Your task to perform on an android device: change the clock display to digital Image 0: 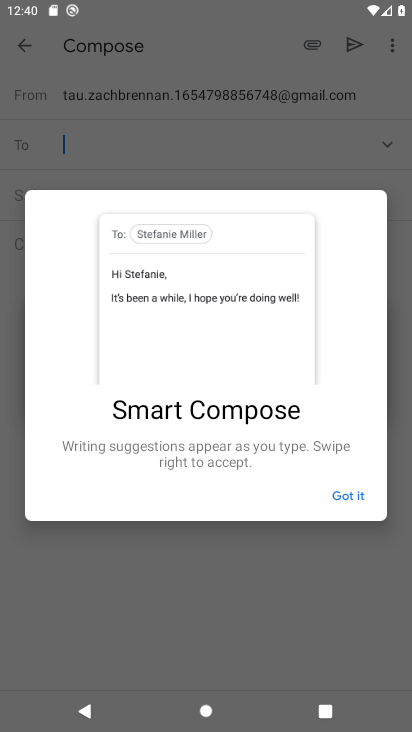
Step 0: press home button
Your task to perform on an android device: change the clock display to digital Image 1: 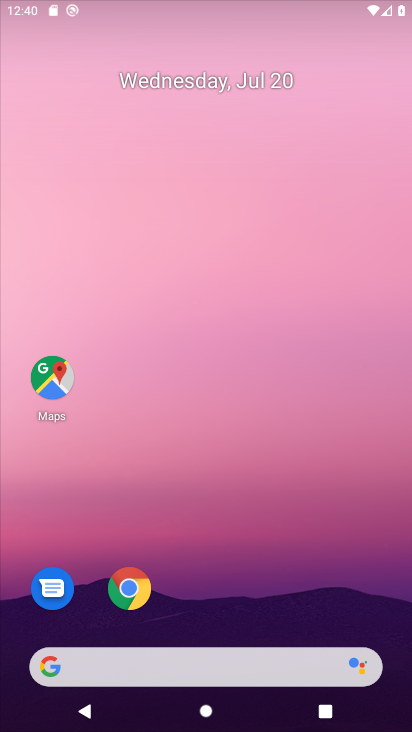
Step 1: drag from (259, 632) to (232, 142)
Your task to perform on an android device: change the clock display to digital Image 2: 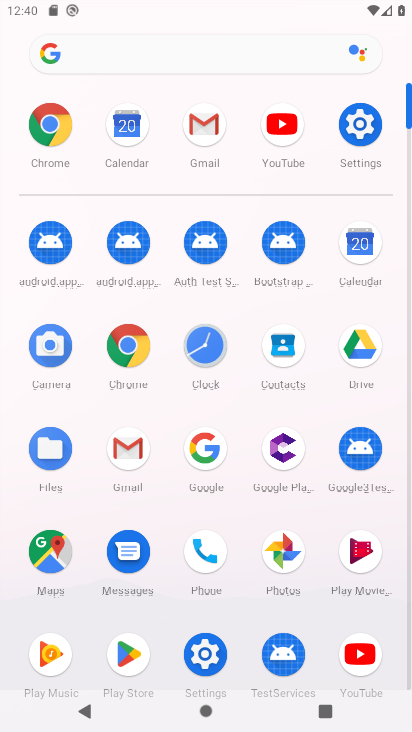
Step 2: click (200, 340)
Your task to perform on an android device: change the clock display to digital Image 3: 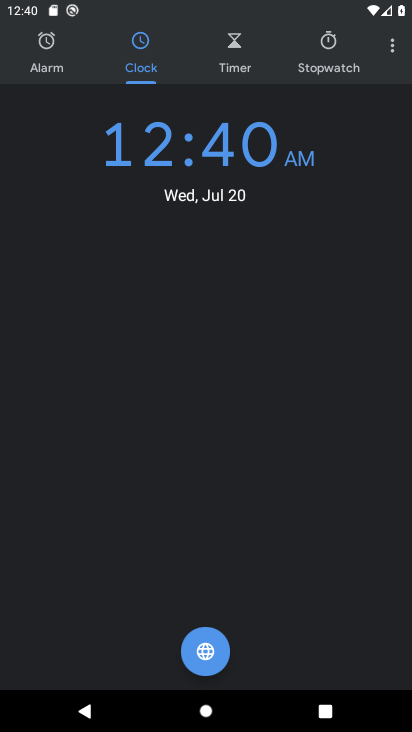
Step 3: click (403, 26)
Your task to perform on an android device: change the clock display to digital Image 4: 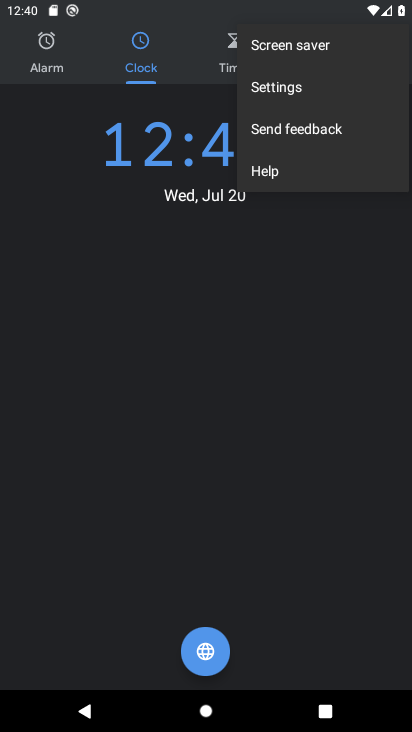
Step 4: click (274, 76)
Your task to perform on an android device: change the clock display to digital Image 5: 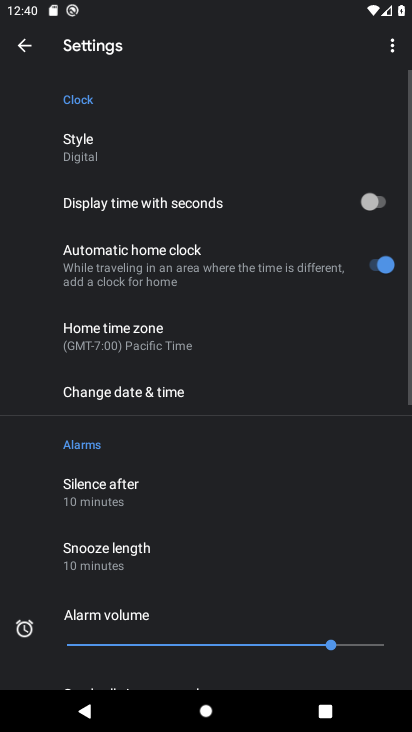
Step 5: click (137, 157)
Your task to perform on an android device: change the clock display to digital Image 6: 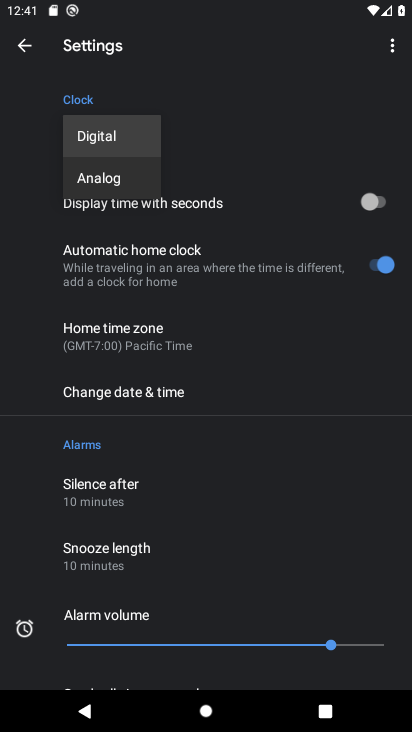
Step 6: click (90, 128)
Your task to perform on an android device: change the clock display to digital Image 7: 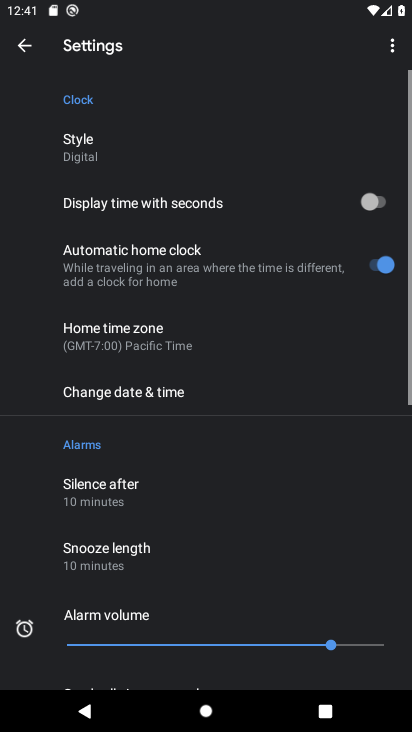
Step 7: task complete